Your task to perform on an android device: turn on sleep mode Image 0: 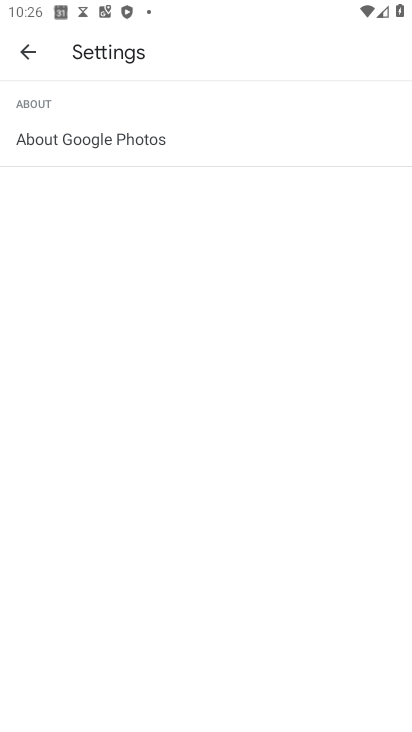
Step 0: drag from (204, 632) to (221, 257)
Your task to perform on an android device: turn on sleep mode Image 1: 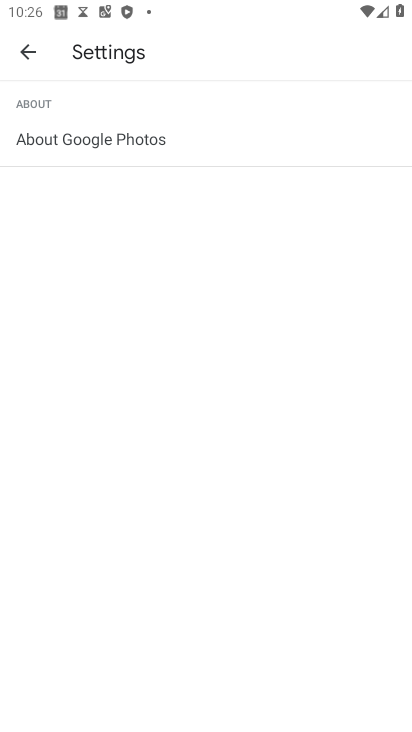
Step 1: press home button
Your task to perform on an android device: turn on sleep mode Image 2: 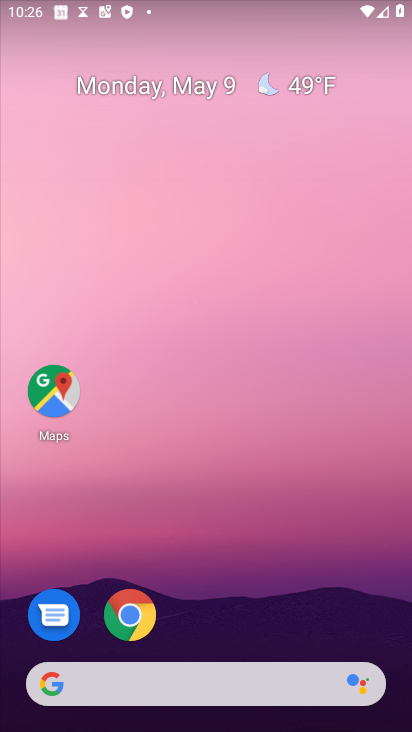
Step 2: drag from (215, 621) to (215, 184)
Your task to perform on an android device: turn on sleep mode Image 3: 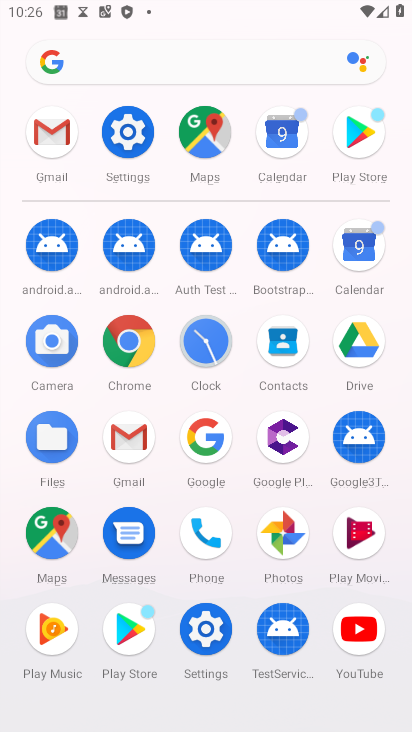
Step 3: click (125, 141)
Your task to perform on an android device: turn on sleep mode Image 4: 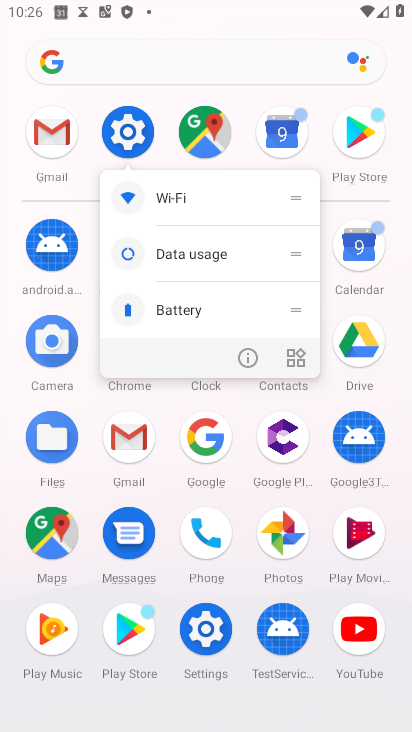
Step 4: click (128, 124)
Your task to perform on an android device: turn on sleep mode Image 5: 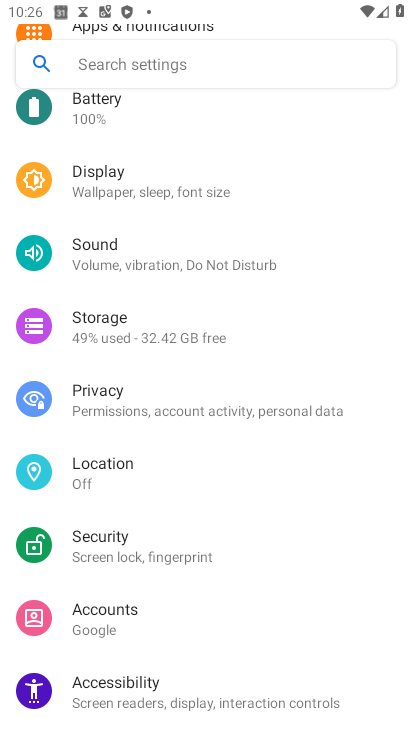
Step 5: click (154, 196)
Your task to perform on an android device: turn on sleep mode Image 6: 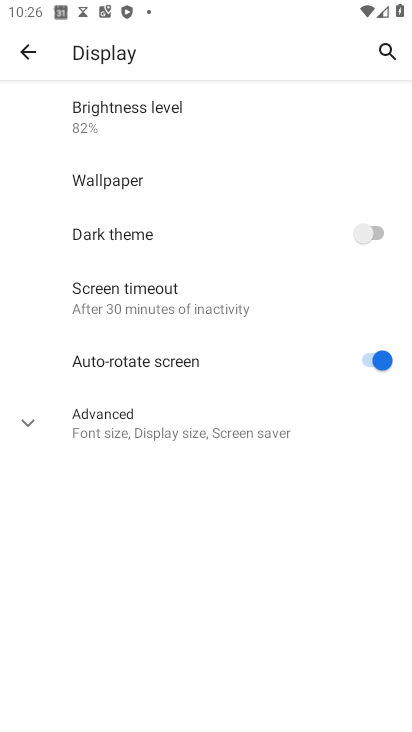
Step 6: click (22, 421)
Your task to perform on an android device: turn on sleep mode Image 7: 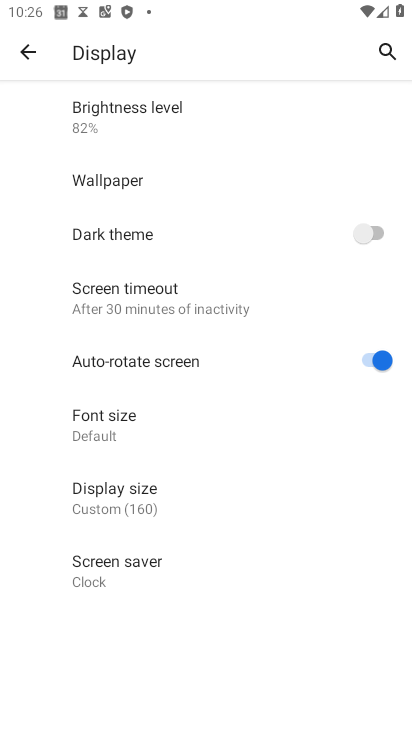
Step 7: task complete